Your task to perform on an android device: change notification settings in the gmail app Image 0: 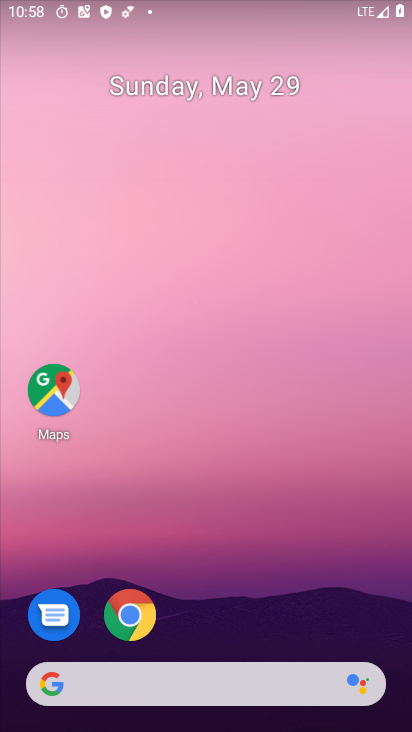
Step 0: drag from (376, 583) to (376, 193)
Your task to perform on an android device: change notification settings in the gmail app Image 1: 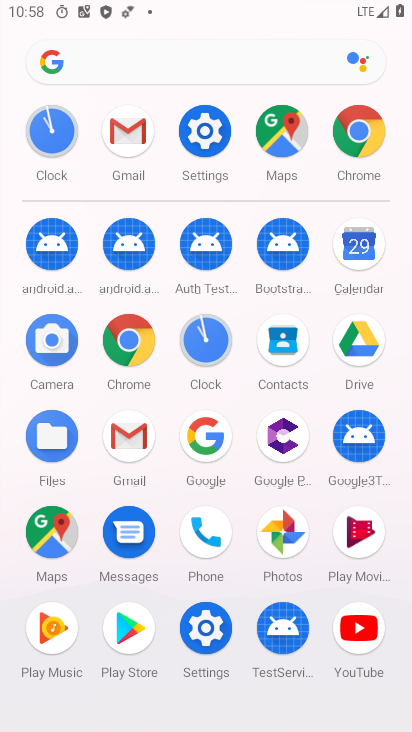
Step 1: click (138, 452)
Your task to perform on an android device: change notification settings in the gmail app Image 2: 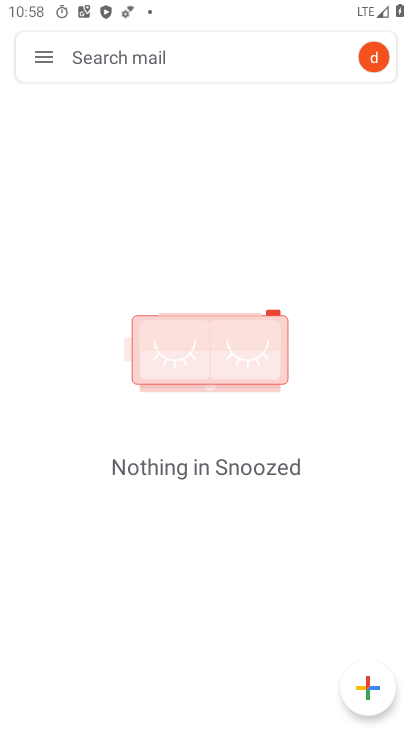
Step 2: click (48, 58)
Your task to perform on an android device: change notification settings in the gmail app Image 3: 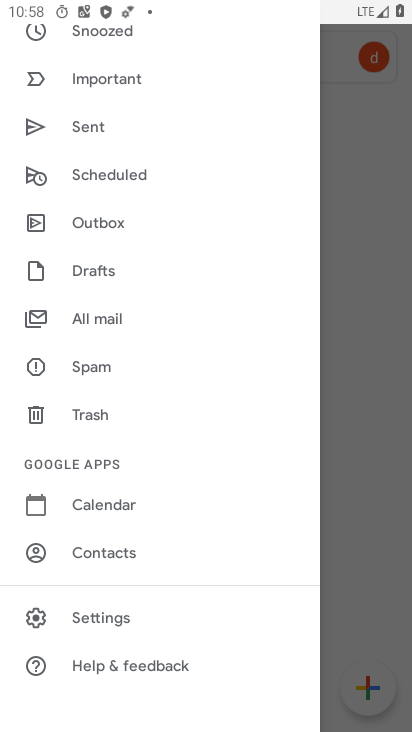
Step 3: click (153, 624)
Your task to perform on an android device: change notification settings in the gmail app Image 4: 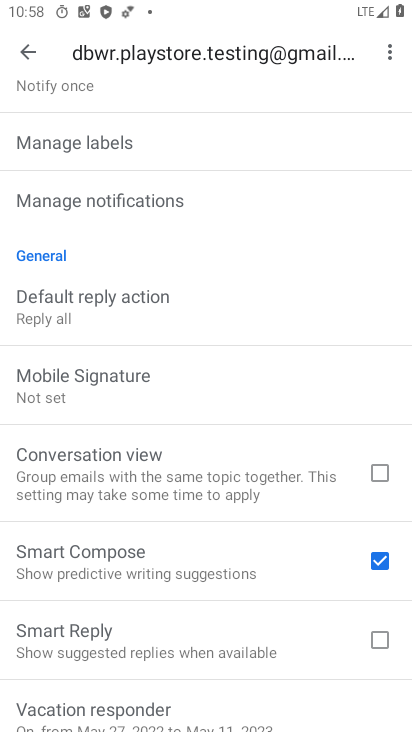
Step 4: drag from (287, 212) to (287, 319)
Your task to perform on an android device: change notification settings in the gmail app Image 5: 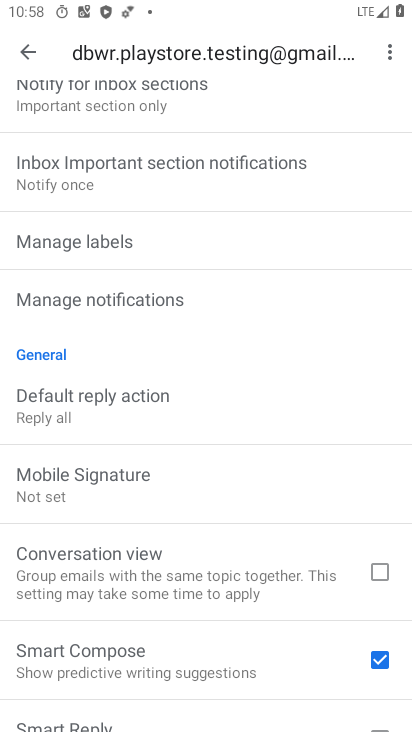
Step 5: drag from (266, 197) to (255, 309)
Your task to perform on an android device: change notification settings in the gmail app Image 6: 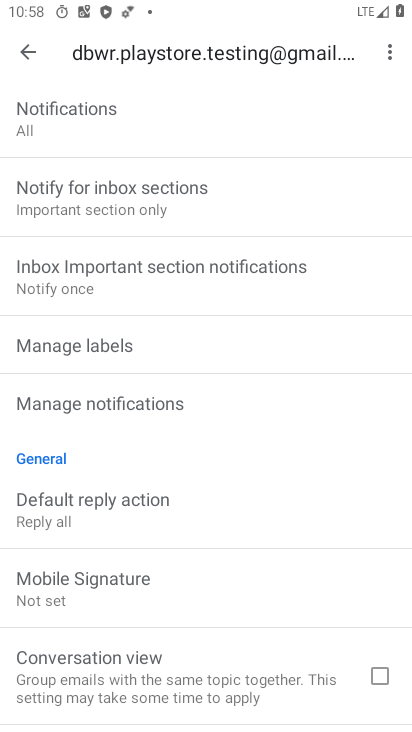
Step 6: drag from (245, 161) to (237, 250)
Your task to perform on an android device: change notification settings in the gmail app Image 7: 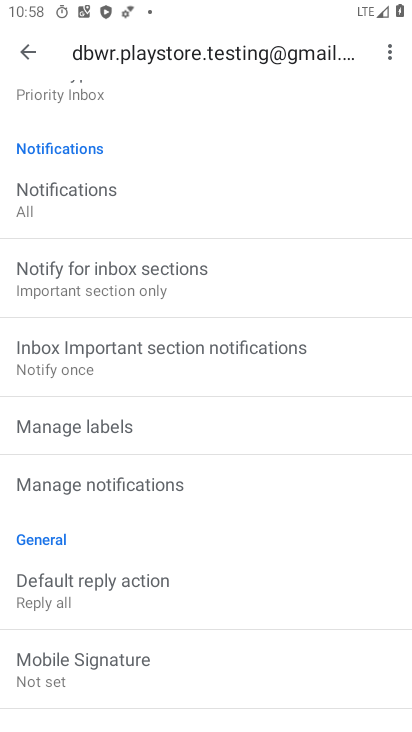
Step 7: drag from (244, 171) to (234, 248)
Your task to perform on an android device: change notification settings in the gmail app Image 8: 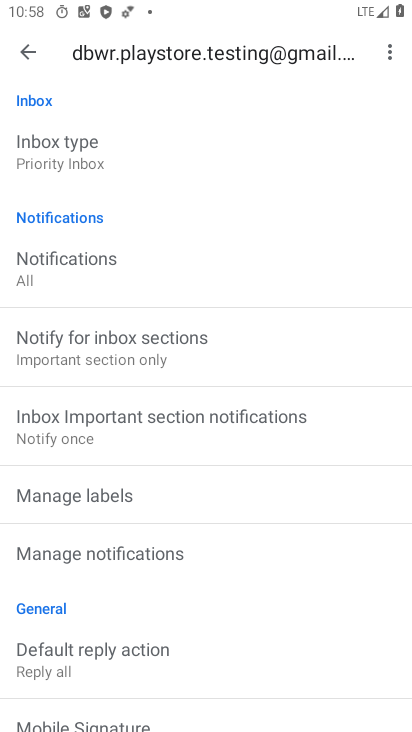
Step 8: click (89, 279)
Your task to perform on an android device: change notification settings in the gmail app Image 9: 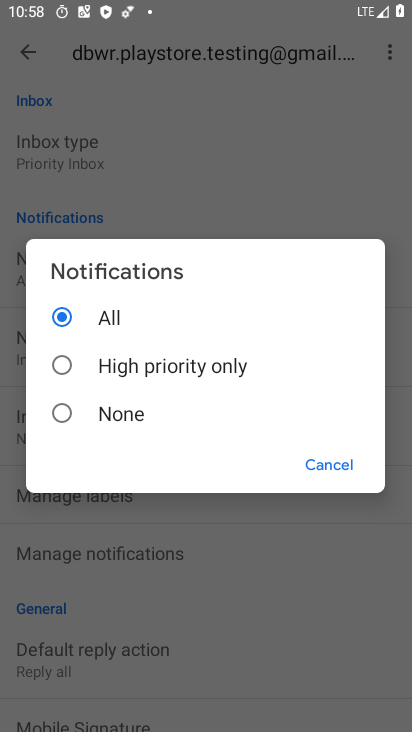
Step 9: click (148, 359)
Your task to perform on an android device: change notification settings in the gmail app Image 10: 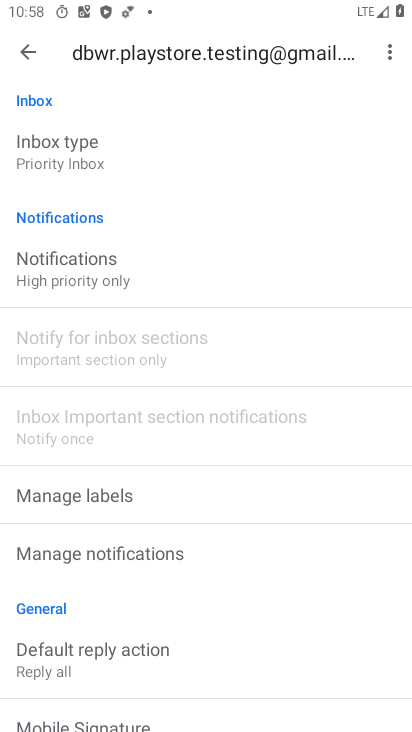
Step 10: task complete